Your task to perform on an android device: turn notification dots on Image 0: 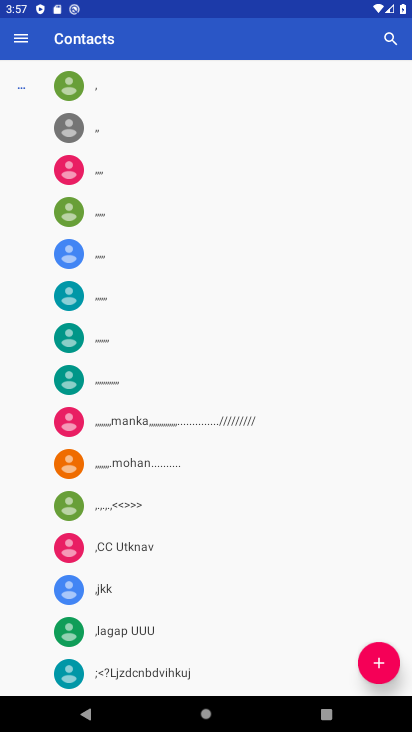
Step 0: press home button
Your task to perform on an android device: turn notification dots on Image 1: 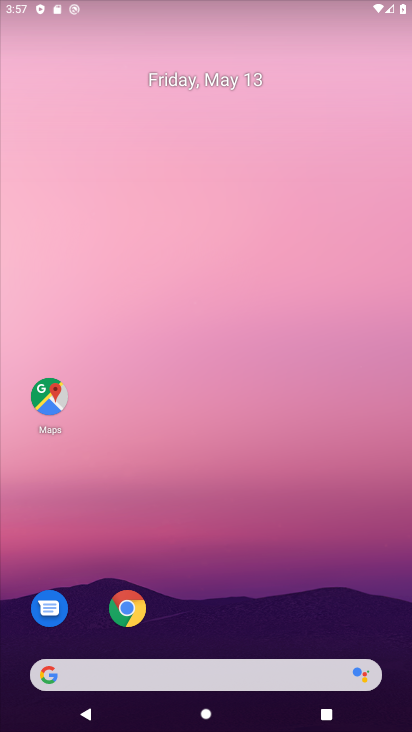
Step 1: drag from (279, 668) to (375, 94)
Your task to perform on an android device: turn notification dots on Image 2: 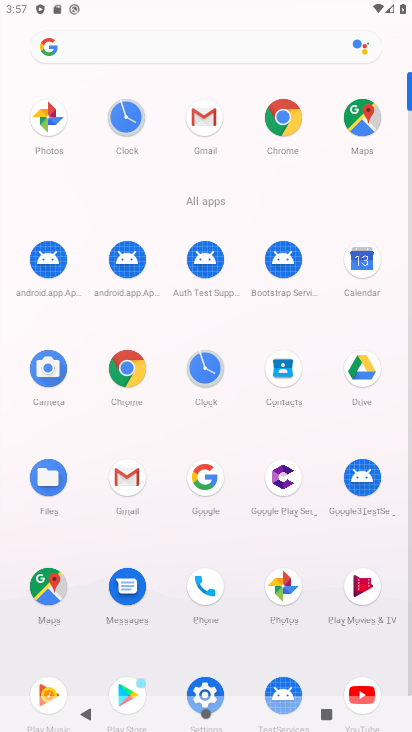
Step 2: click (205, 687)
Your task to perform on an android device: turn notification dots on Image 3: 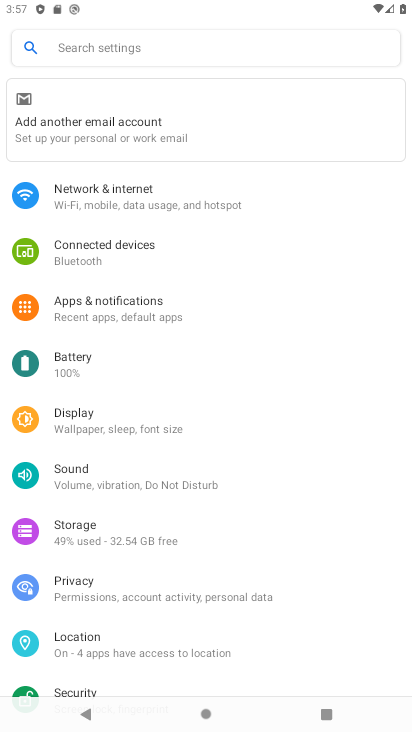
Step 3: click (144, 294)
Your task to perform on an android device: turn notification dots on Image 4: 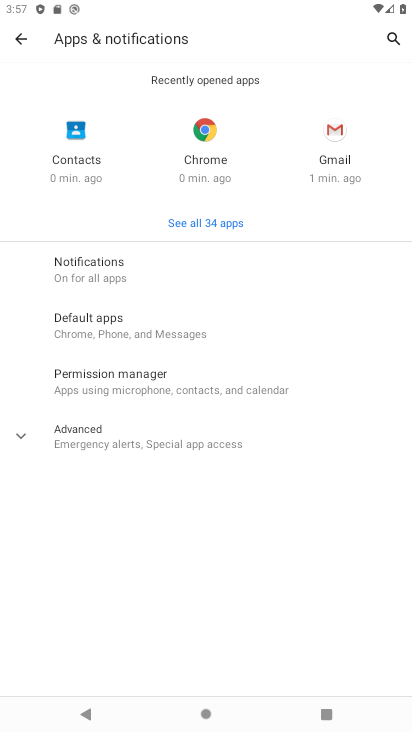
Step 4: click (129, 270)
Your task to perform on an android device: turn notification dots on Image 5: 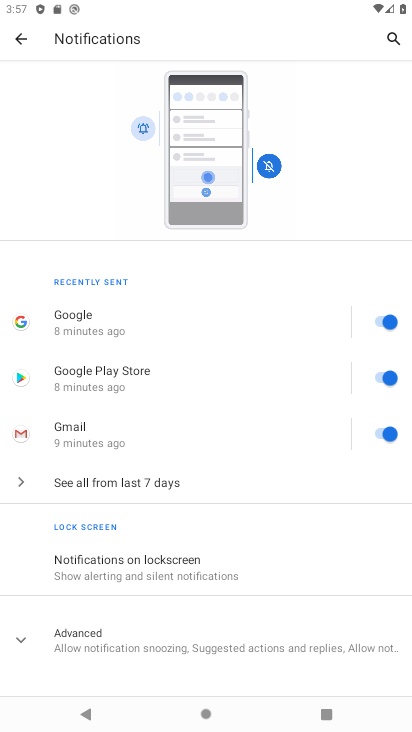
Step 5: drag from (221, 528) to (221, 166)
Your task to perform on an android device: turn notification dots on Image 6: 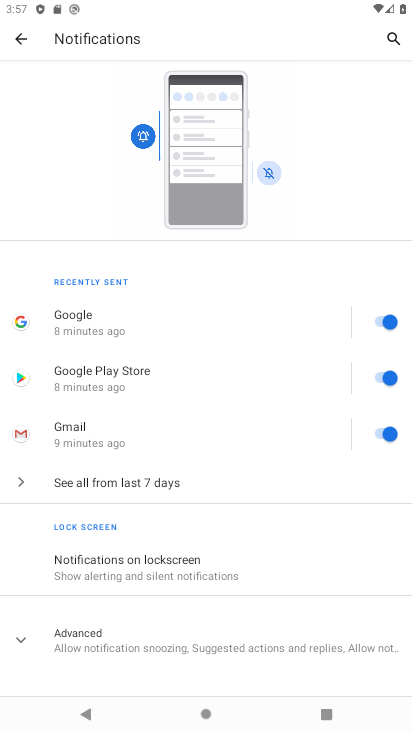
Step 6: click (123, 639)
Your task to perform on an android device: turn notification dots on Image 7: 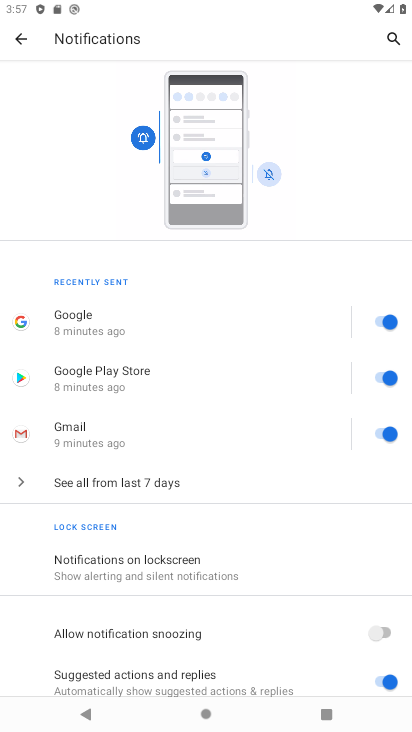
Step 7: task complete